Your task to perform on an android device: add a contact Image 0: 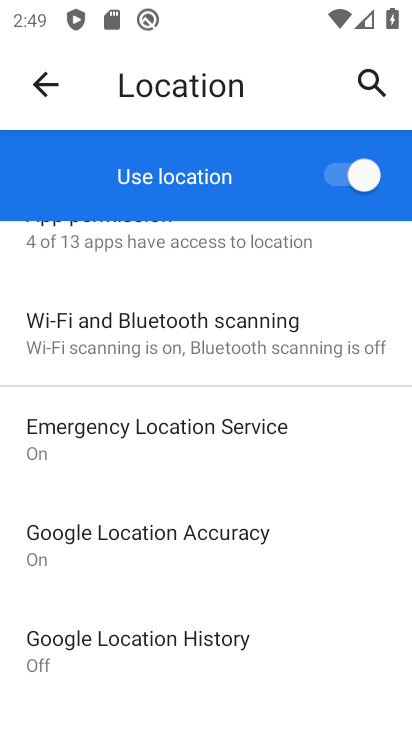
Step 0: press home button
Your task to perform on an android device: add a contact Image 1: 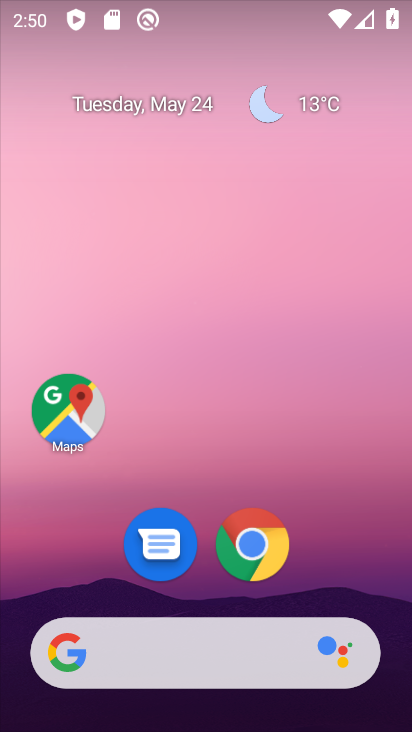
Step 1: drag from (361, 535) to (10, 198)
Your task to perform on an android device: add a contact Image 2: 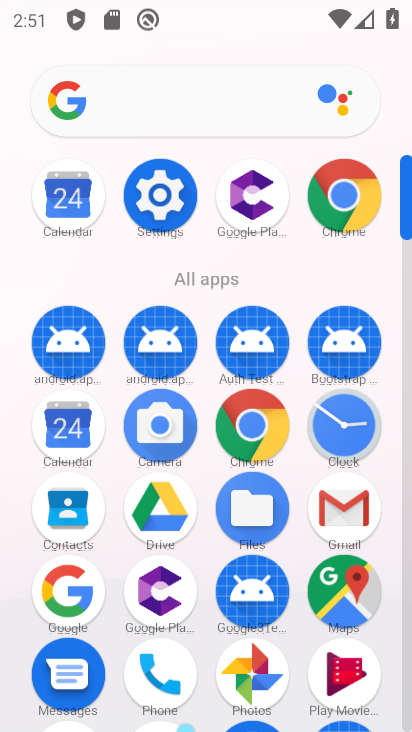
Step 2: click (150, 659)
Your task to perform on an android device: add a contact Image 3: 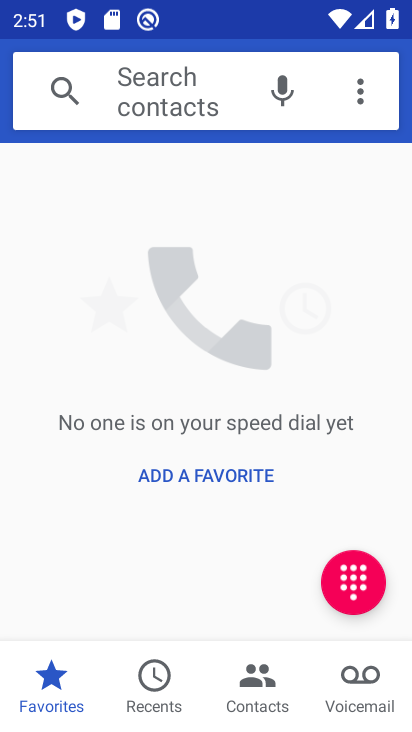
Step 3: click (267, 702)
Your task to perform on an android device: add a contact Image 4: 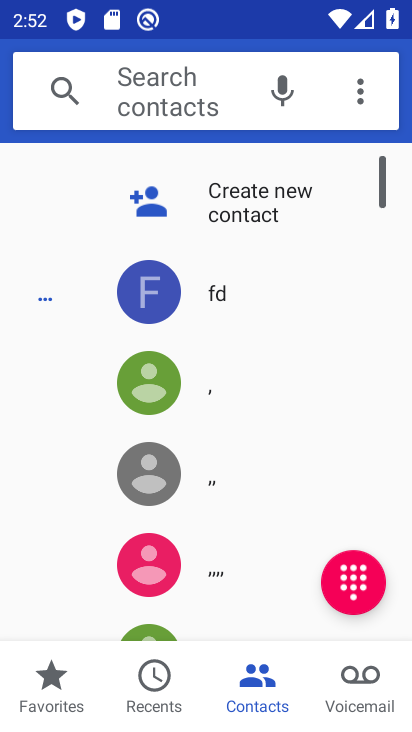
Step 4: click (143, 219)
Your task to perform on an android device: add a contact Image 5: 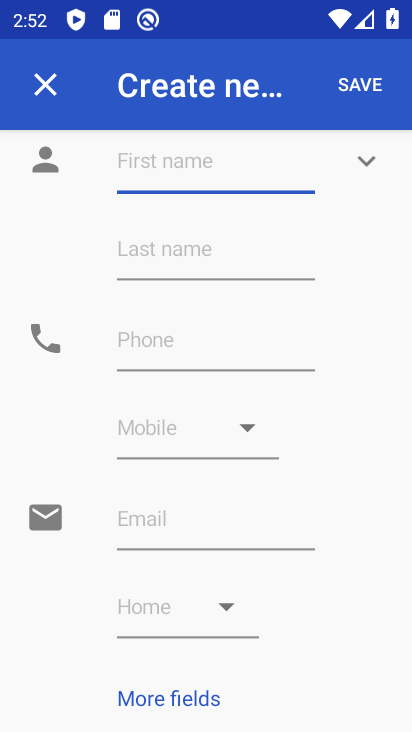
Step 5: type "yygg"
Your task to perform on an android device: add a contact Image 6: 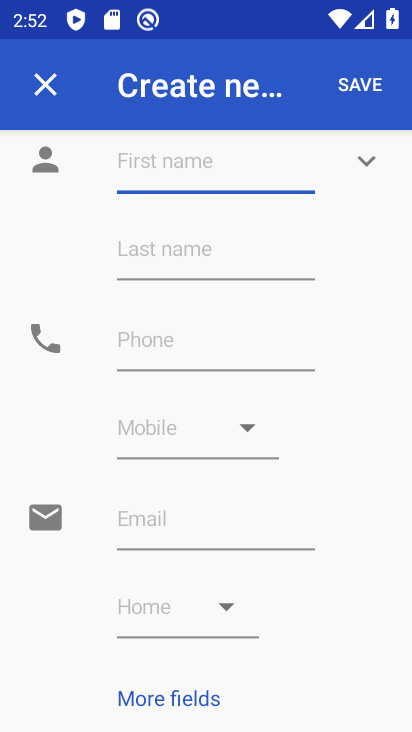
Step 6: click (226, 364)
Your task to perform on an android device: add a contact Image 7: 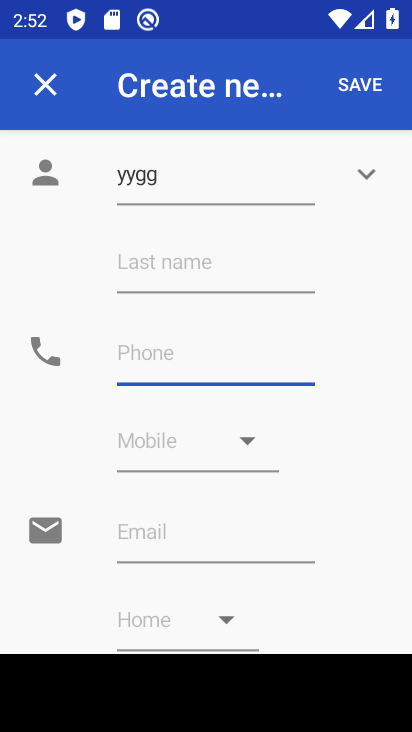
Step 7: type "68677777"
Your task to perform on an android device: add a contact Image 8: 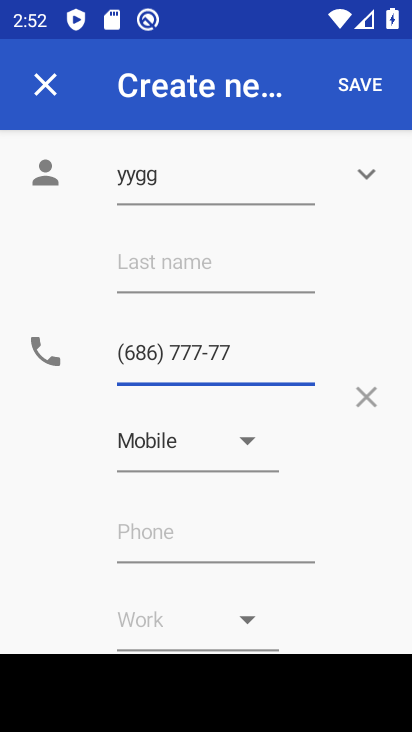
Step 8: click (377, 87)
Your task to perform on an android device: add a contact Image 9: 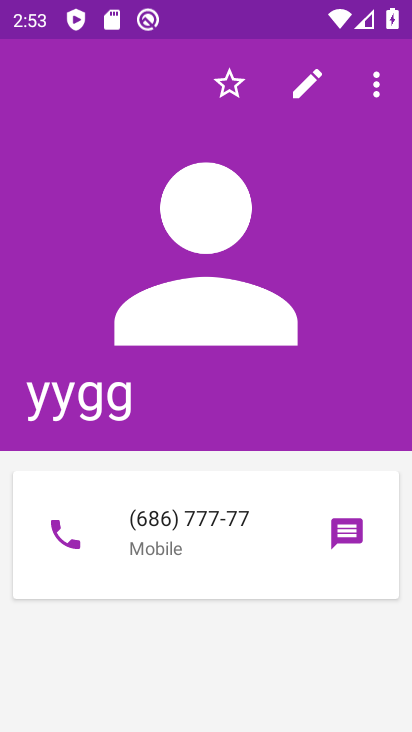
Step 9: task complete